Your task to perform on an android device: turn on priority inbox in the gmail app Image 0: 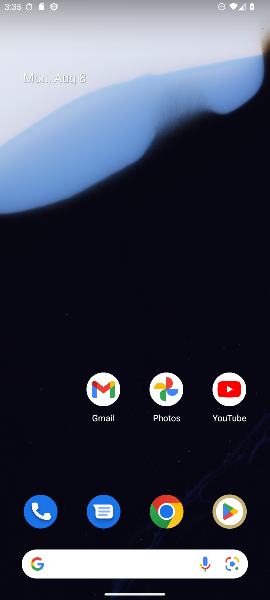
Step 0: drag from (135, 462) to (148, 82)
Your task to perform on an android device: turn on priority inbox in the gmail app Image 1: 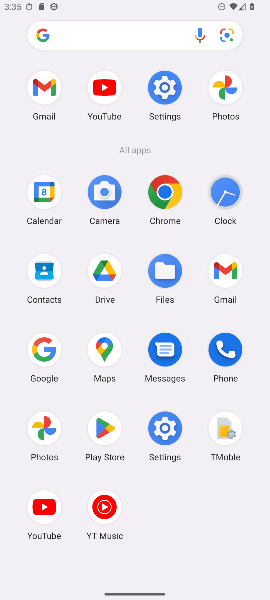
Step 1: click (220, 276)
Your task to perform on an android device: turn on priority inbox in the gmail app Image 2: 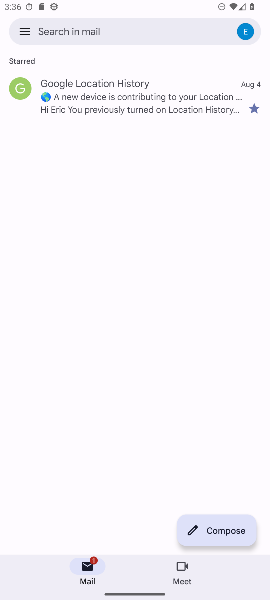
Step 2: click (26, 23)
Your task to perform on an android device: turn on priority inbox in the gmail app Image 3: 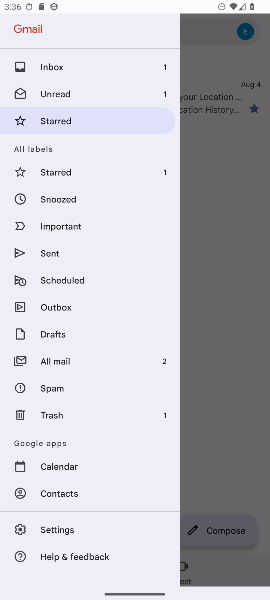
Step 3: click (63, 532)
Your task to perform on an android device: turn on priority inbox in the gmail app Image 4: 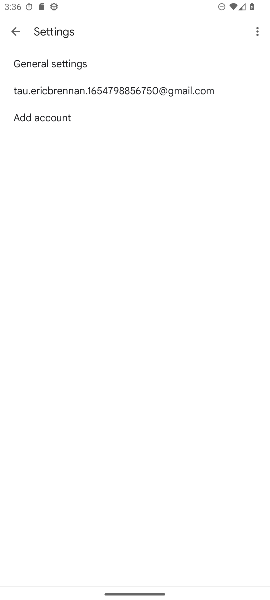
Step 4: click (111, 76)
Your task to perform on an android device: turn on priority inbox in the gmail app Image 5: 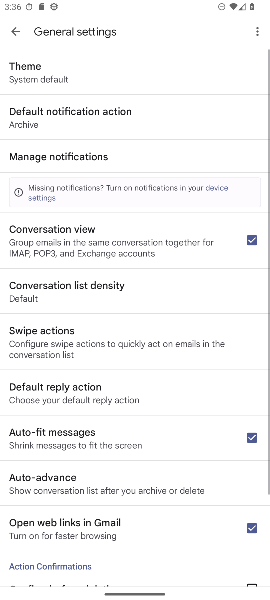
Step 5: click (10, 36)
Your task to perform on an android device: turn on priority inbox in the gmail app Image 6: 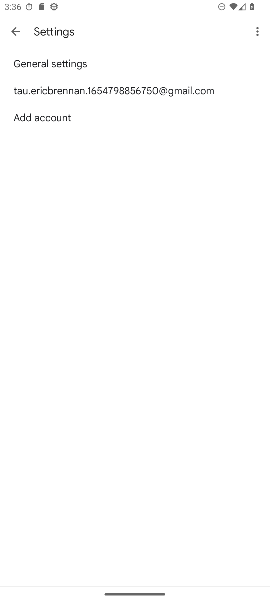
Step 6: click (94, 85)
Your task to perform on an android device: turn on priority inbox in the gmail app Image 7: 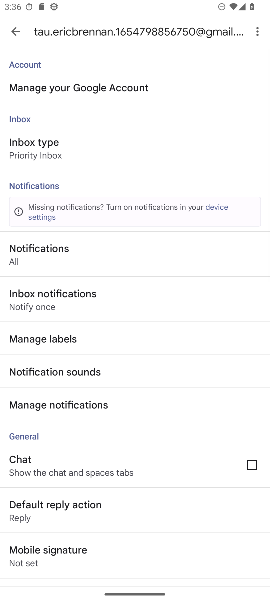
Step 7: click (45, 145)
Your task to perform on an android device: turn on priority inbox in the gmail app Image 8: 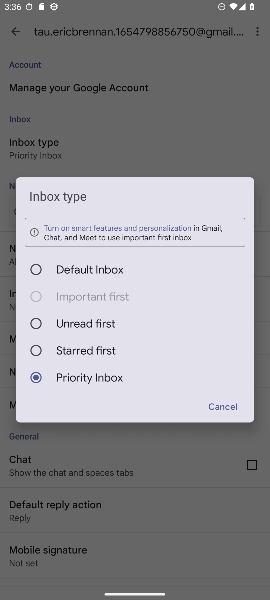
Step 8: task complete